Your task to perform on an android device: Search for macbook pro 15 inch on ebay, select the first entry, and add it to the cart. Image 0: 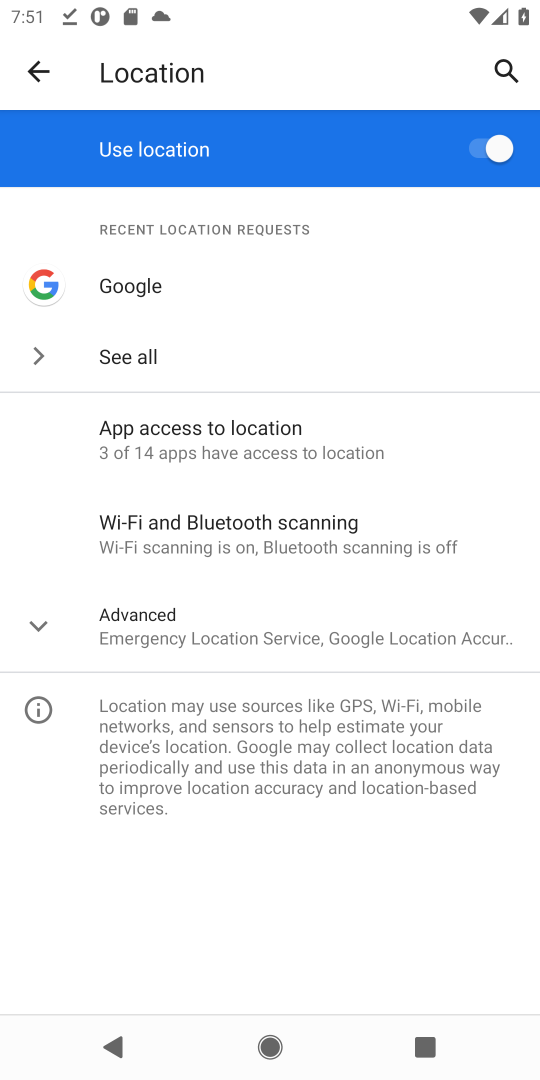
Step 0: press home button
Your task to perform on an android device: Search for macbook pro 15 inch on ebay, select the first entry, and add it to the cart. Image 1: 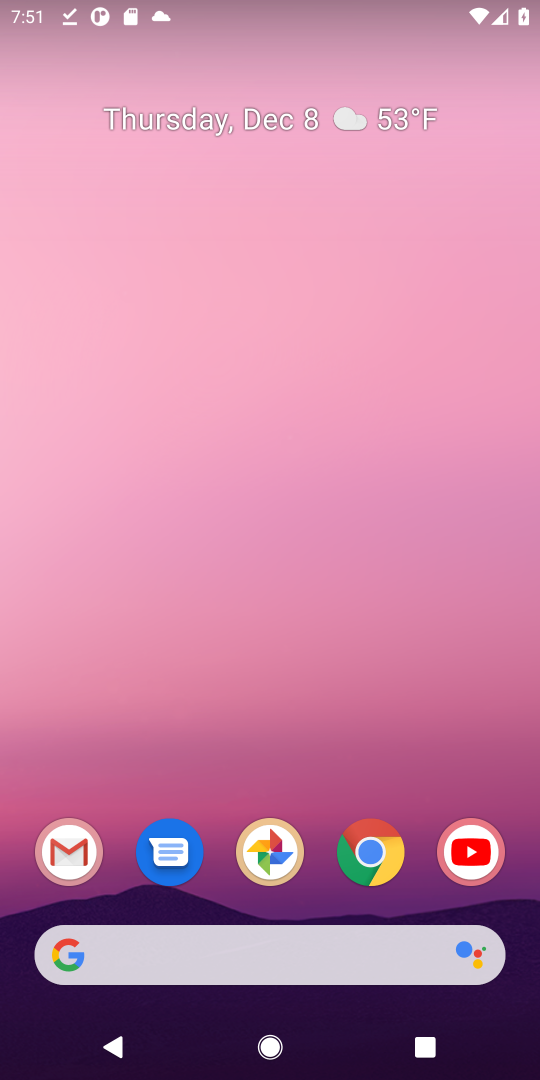
Step 1: click (310, 966)
Your task to perform on an android device: Search for macbook pro 15 inch on ebay, select the first entry, and add it to the cart. Image 2: 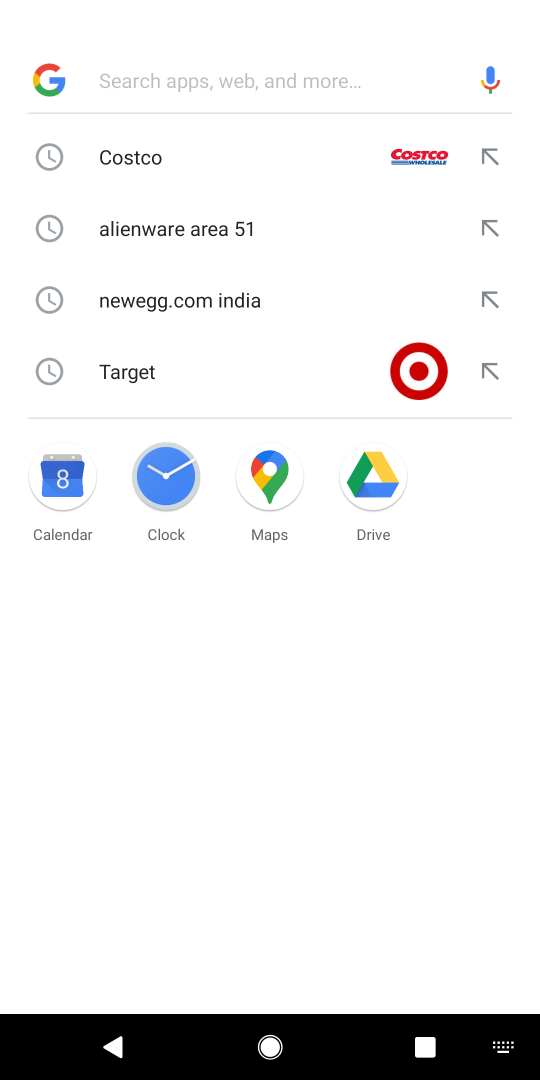
Step 2: type "ebay.com"
Your task to perform on an android device: Search for macbook pro 15 inch on ebay, select the first entry, and add it to the cart. Image 3: 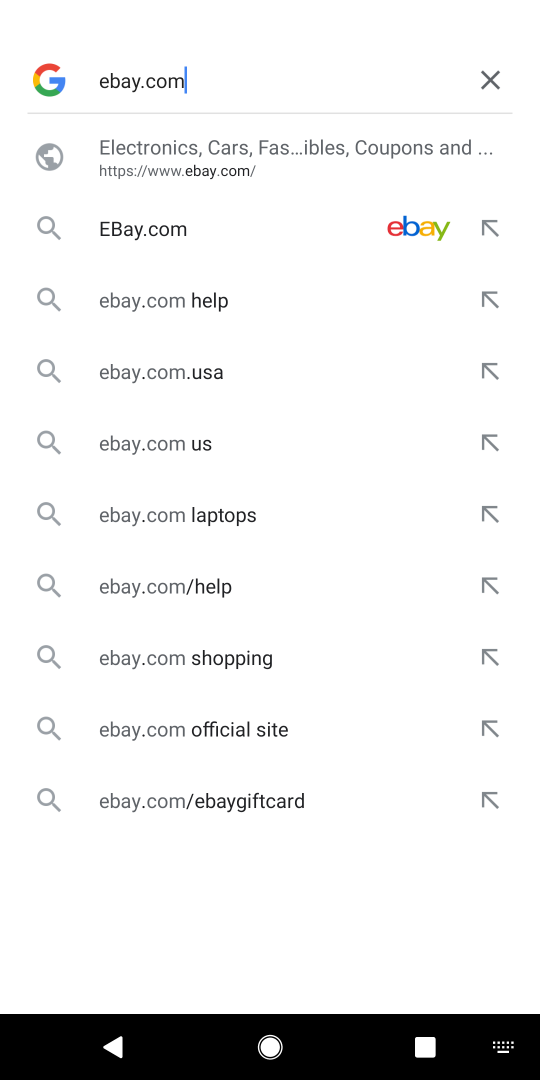
Step 3: click (198, 239)
Your task to perform on an android device: Search for macbook pro 15 inch on ebay, select the first entry, and add it to the cart. Image 4: 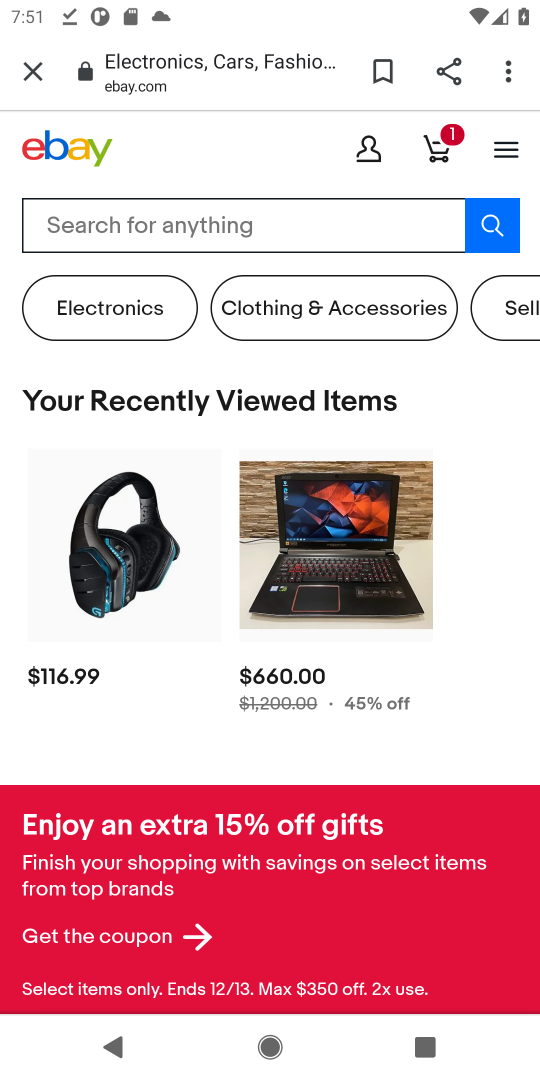
Step 4: click (240, 228)
Your task to perform on an android device: Search for macbook pro 15 inch on ebay, select the first entry, and add it to the cart. Image 5: 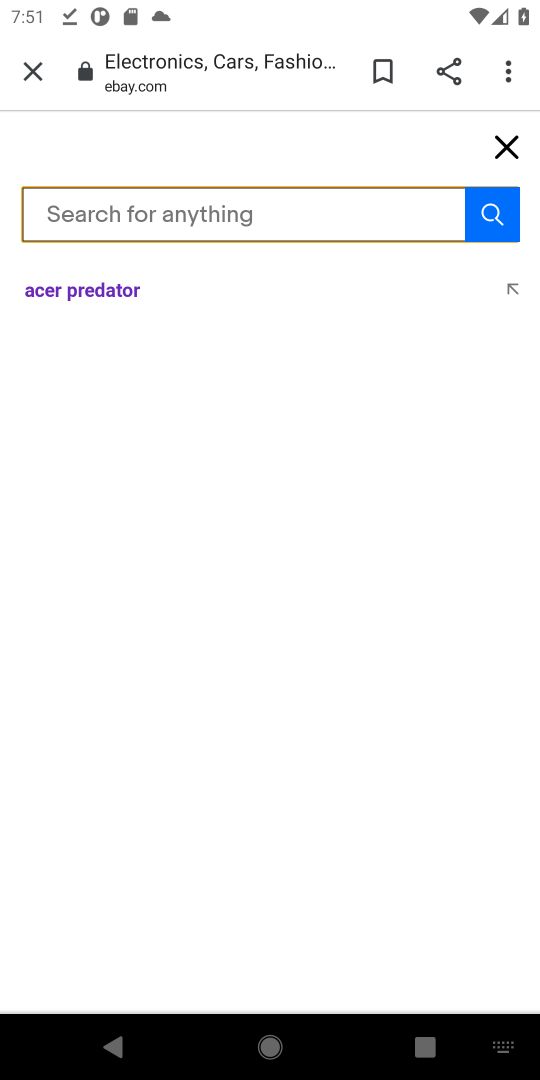
Step 5: type "macbook pro 15"
Your task to perform on an android device: Search for macbook pro 15 inch on ebay, select the first entry, and add it to the cart. Image 6: 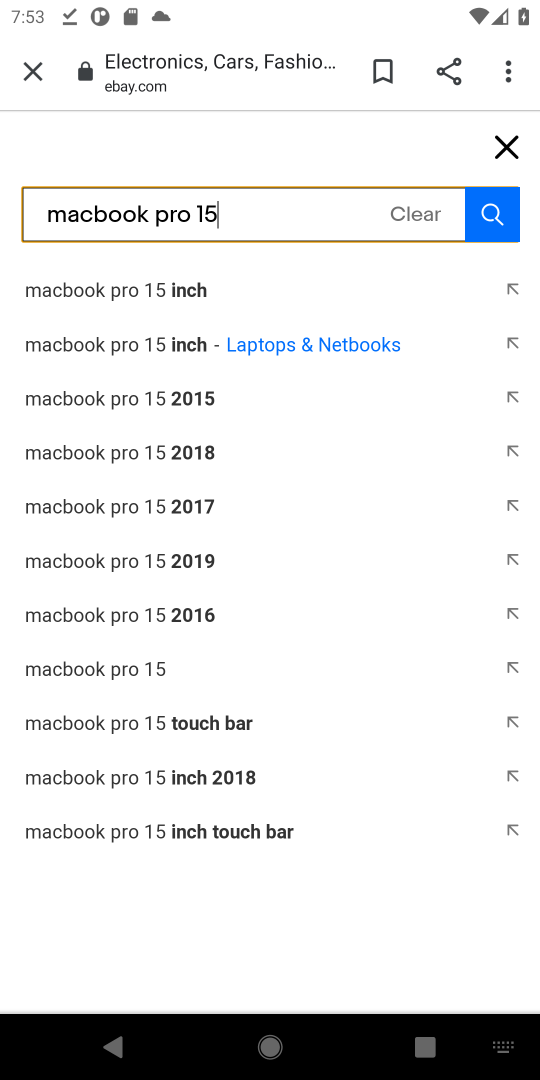
Step 6: click (182, 297)
Your task to perform on an android device: Search for macbook pro 15 inch on ebay, select the first entry, and add it to the cart. Image 7: 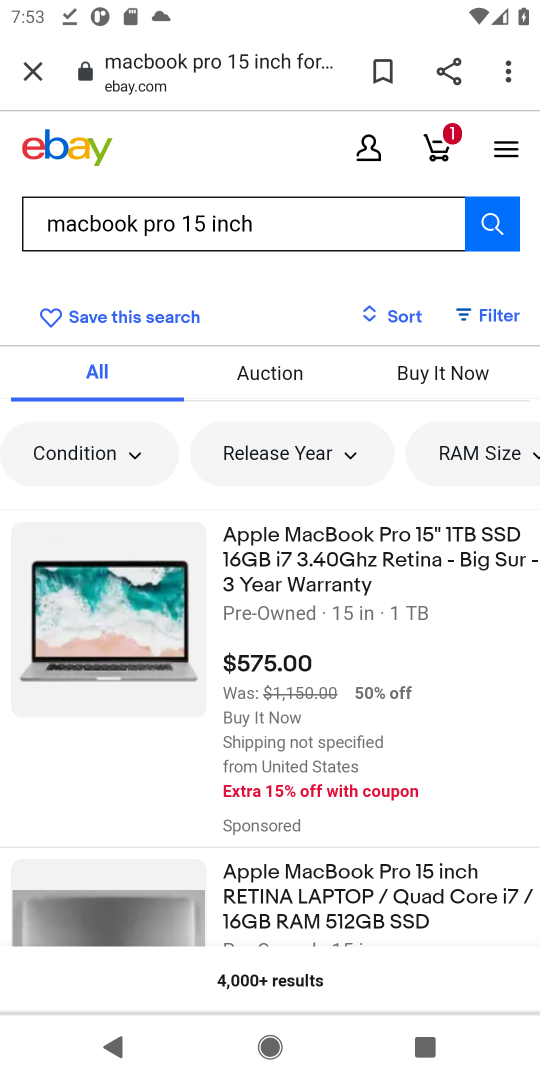
Step 7: click (366, 538)
Your task to perform on an android device: Search for macbook pro 15 inch on ebay, select the first entry, and add it to the cart. Image 8: 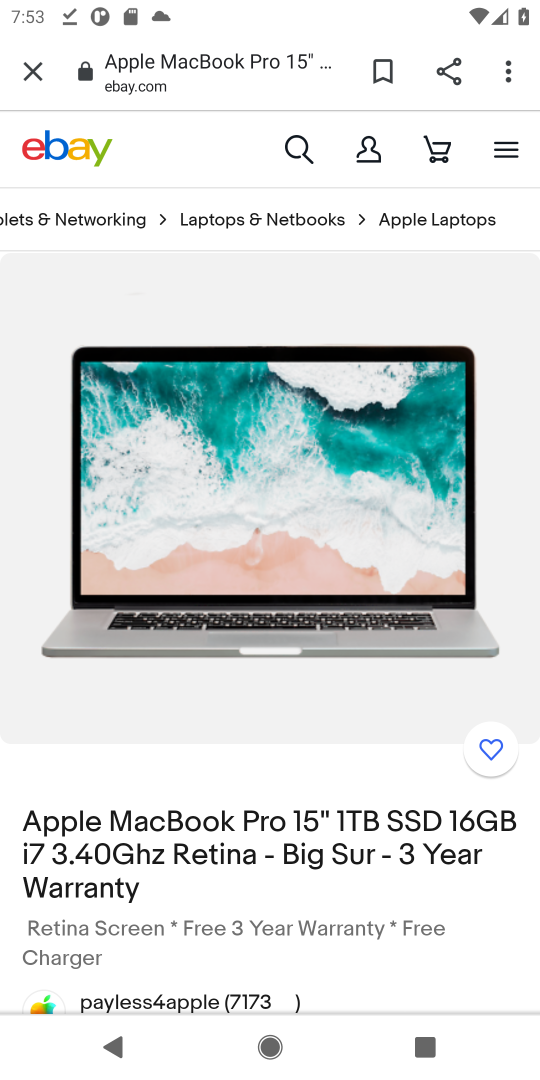
Step 8: drag from (261, 741) to (306, 334)
Your task to perform on an android device: Search for macbook pro 15 inch on ebay, select the first entry, and add it to the cart. Image 9: 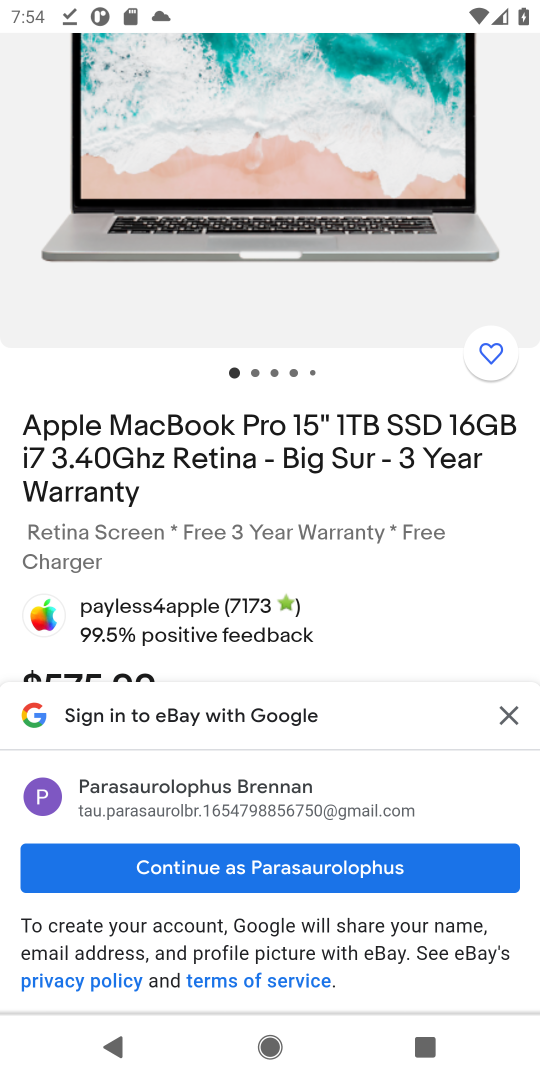
Step 9: click (517, 725)
Your task to perform on an android device: Search for macbook pro 15 inch on ebay, select the first entry, and add it to the cart. Image 10: 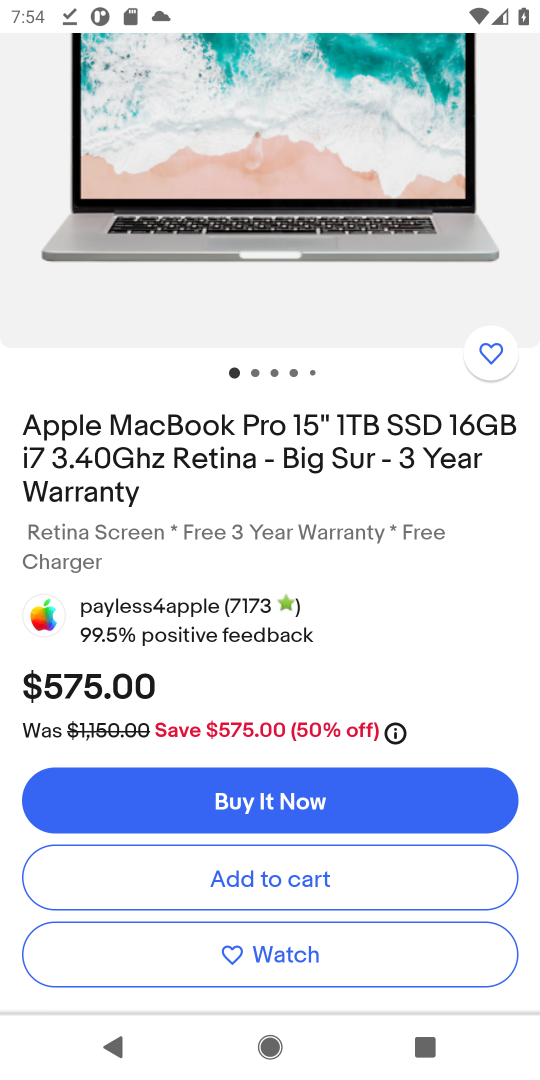
Step 10: click (370, 872)
Your task to perform on an android device: Search for macbook pro 15 inch on ebay, select the first entry, and add it to the cart. Image 11: 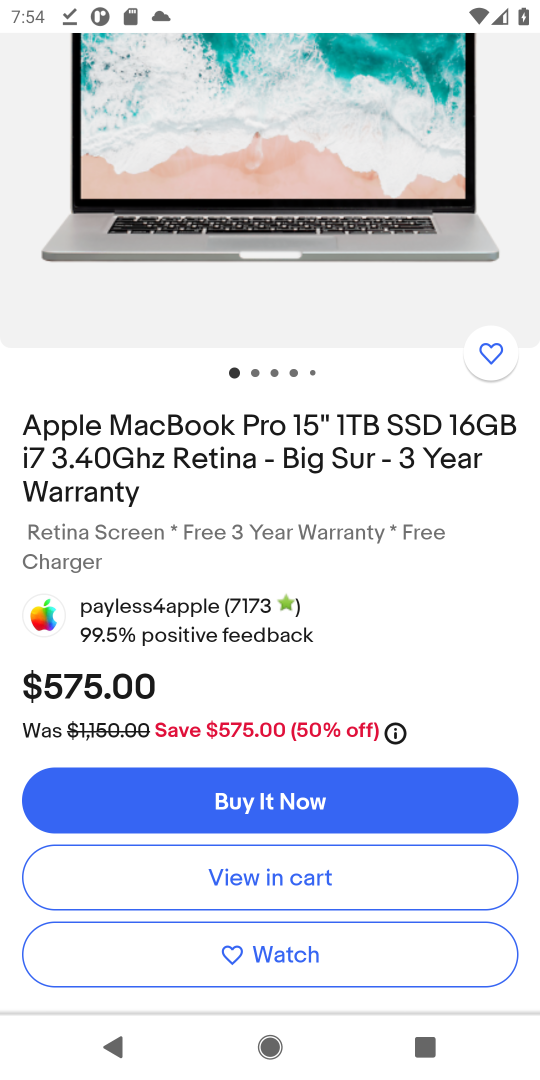
Step 11: task complete